Your task to perform on an android device: see tabs open on other devices in the chrome app Image 0: 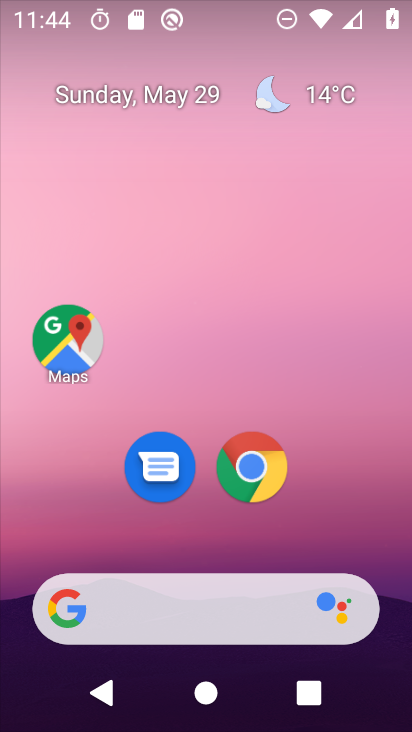
Step 0: click (252, 478)
Your task to perform on an android device: see tabs open on other devices in the chrome app Image 1: 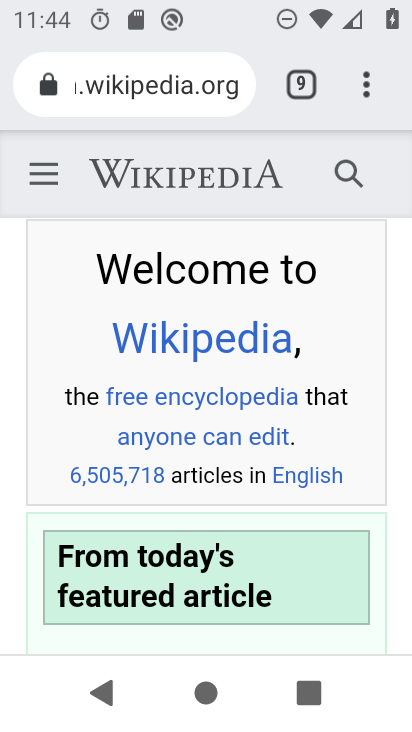
Step 1: task complete